Your task to perform on an android device: Open Chrome and go to the settings page Image 0: 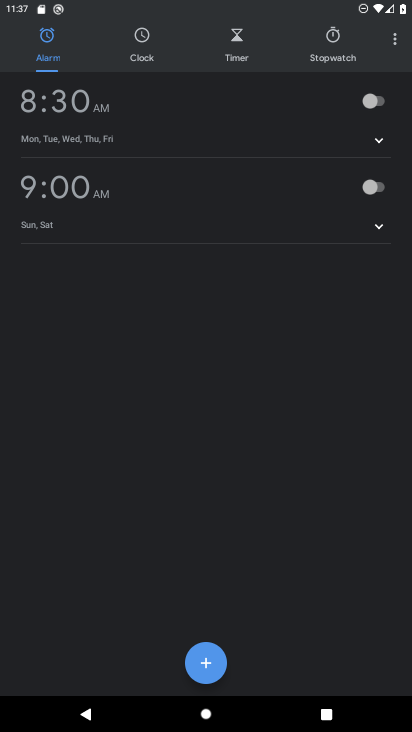
Step 0: press home button
Your task to perform on an android device: Open Chrome and go to the settings page Image 1: 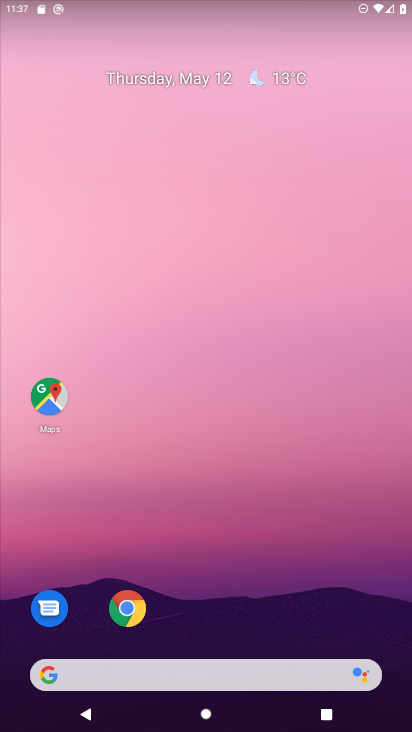
Step 1: click (126, 607)
Your task to perform on an android device: Open Chrome and go to the settings page Image 2: 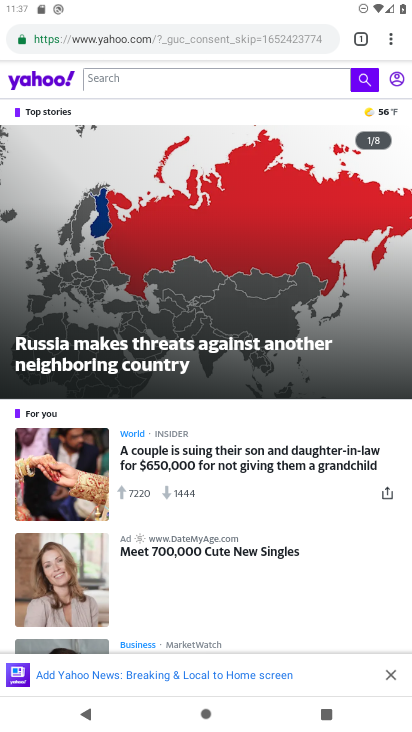
Step 2: click (386, 47)
Your task to perform on an android device: Open Chrome and go to the settings page Image 3: 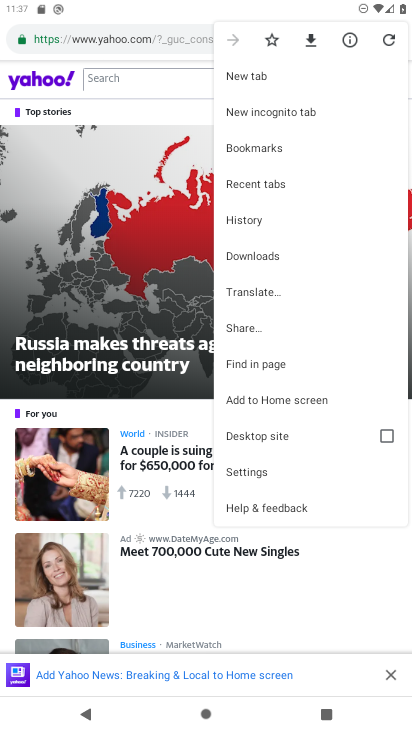
Step 3: click (256, 473)
Your task to perform on an android device: Open Chrome and go to the settings page Image 4: 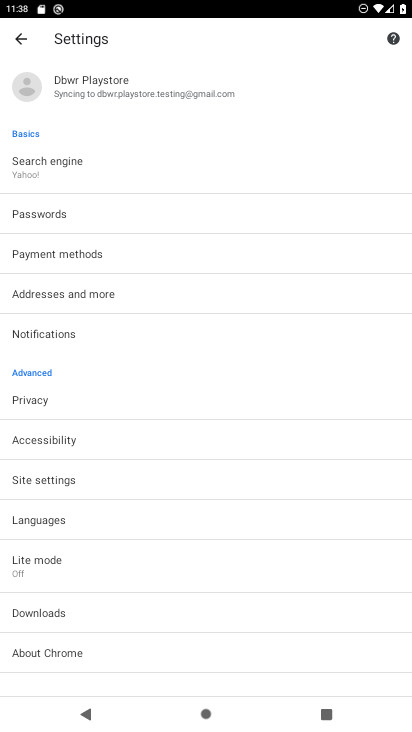
Step 4: task complete